Your task to perform on an android device: turn off airplane mode Image 0: 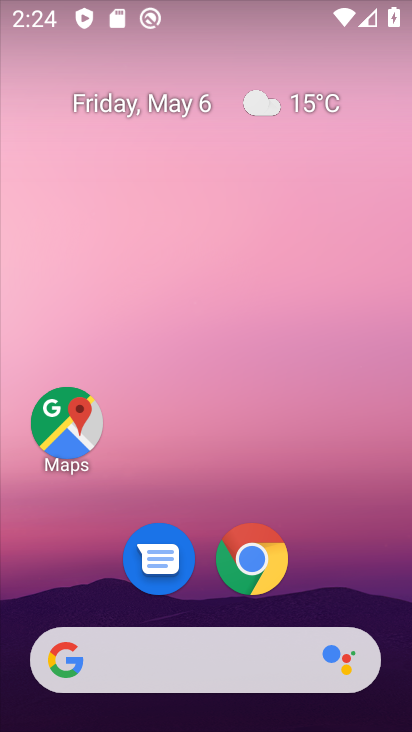
Step 0: click (268, 569)
Your task to perform on an android device: turn off airplane mode Image 1: 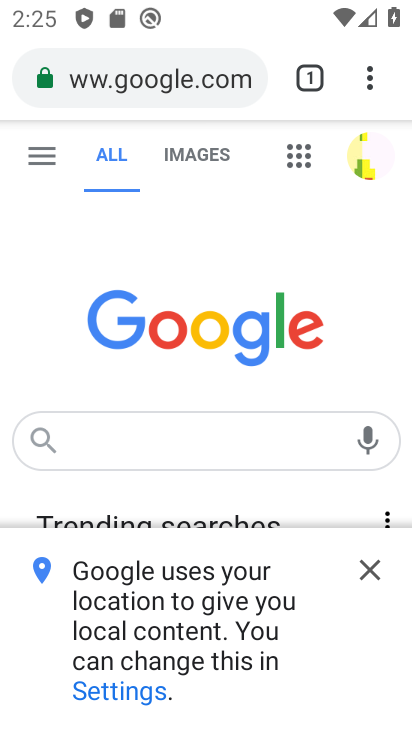
Step 1: click (368, 87)
Your task to perform on an android device: turn off airplane mode Image 2: 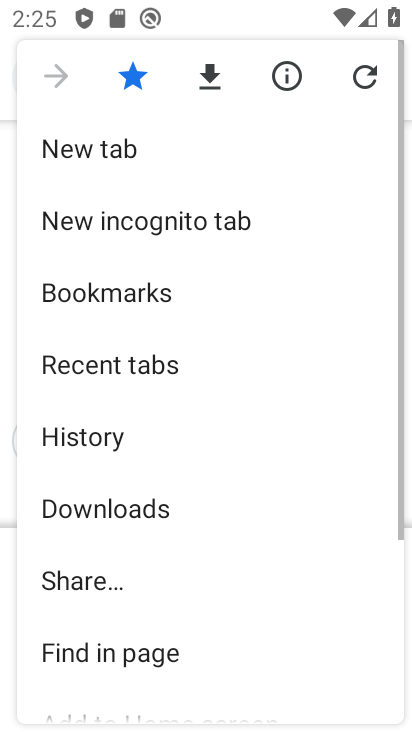
Step 2: press home button
Your task to perform on an android device: turn off airplane mode Image 3: 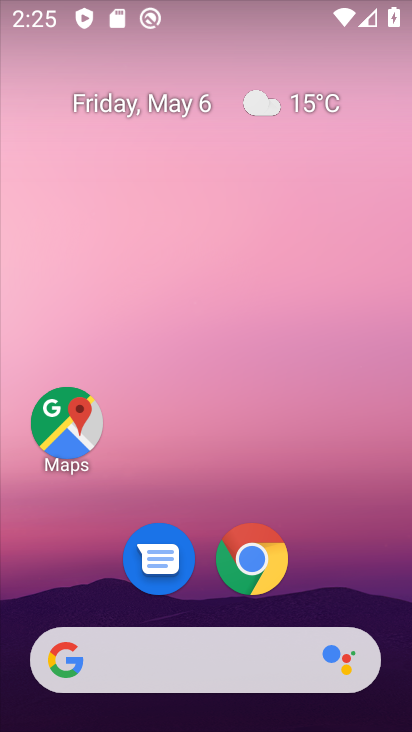
Step 3: drag from (349, 475) to (268, 95)
Your task to perform on an android device: turn off airplane mode Image 4: 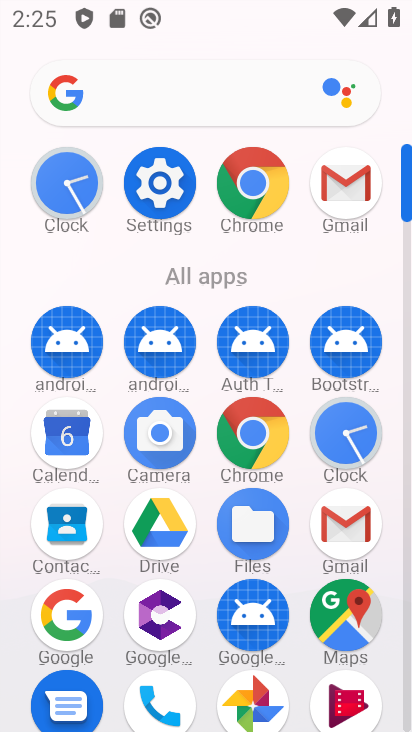
Step 4: click (157, 179)
Your task to perform on an android device: turn off airplane mode Image 5: 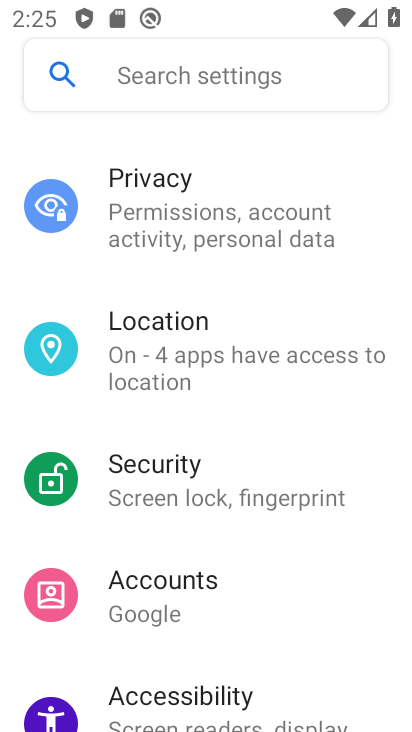
Step 5: drag from (245, 247) to (298, 671)
Your task to perform on an android device: turn off airplane mode Image 6: 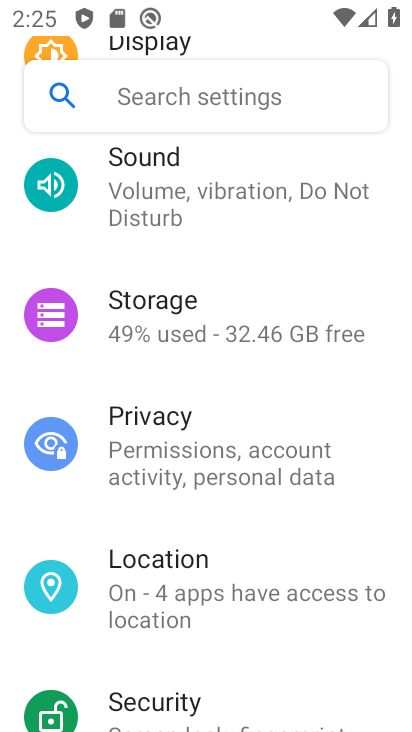
Step 6: drag from (264, 316) to (276, 715)
Your task to perform on an android device: turn off airplane mode Image 7: 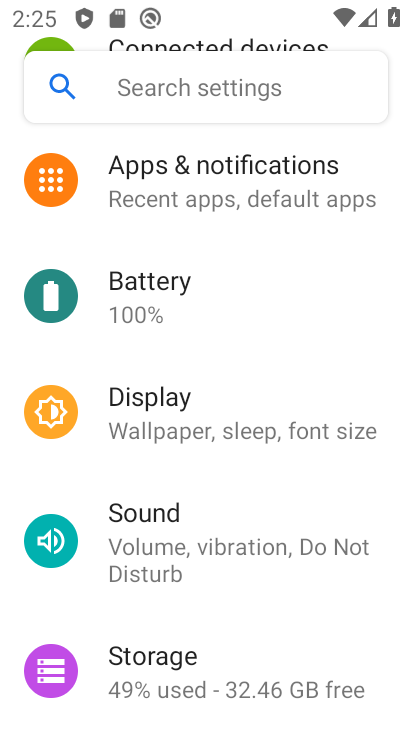
Step 7: drag from (237, 289) to (344, 660)
Your task to perform on an android device: turn off airplane mode Image 8: 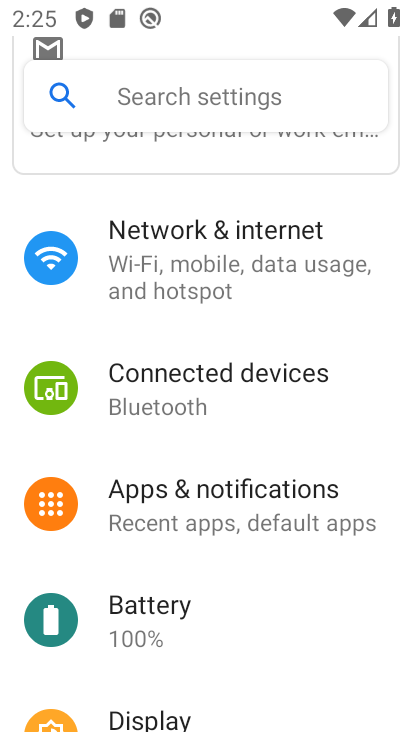
Step 8: click (276, 322)
Your task to perform on an android device: turn off airplane mode Image 9: 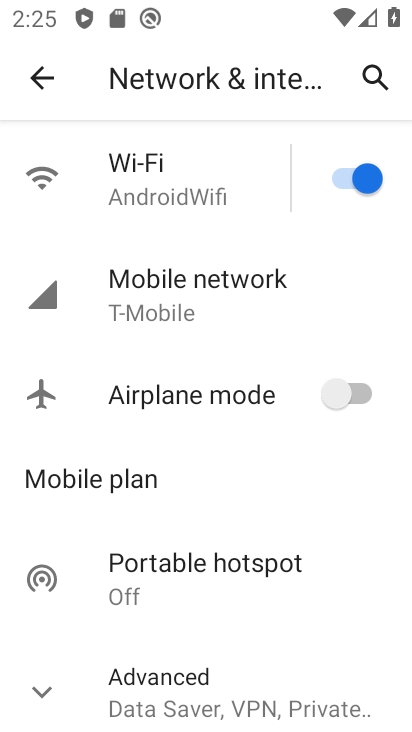
Step 9: click (353, 398)
Your task to perform on an android device: turn off airplane mode Image 10: 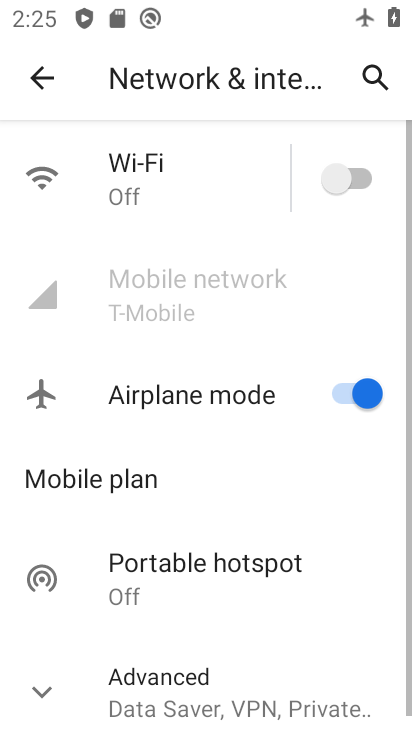
Step 10: task complete